Your task to perform on an android device: create a new album in the google photos Image 0: 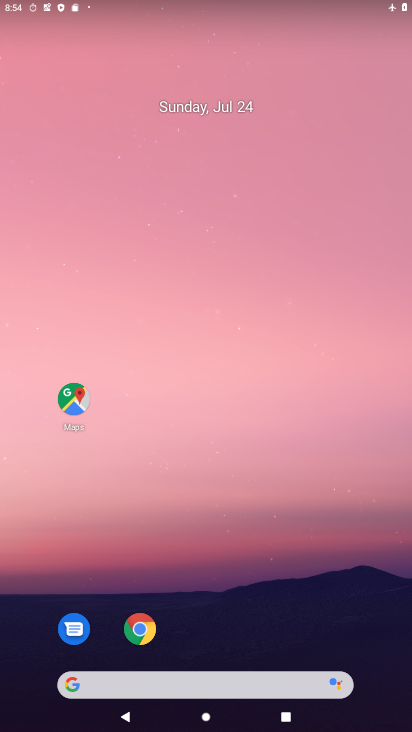
Step 0: drag from (168, 647) to (254, 122)
Your task to perform on an android device: create a new album in the google photos Image 1: 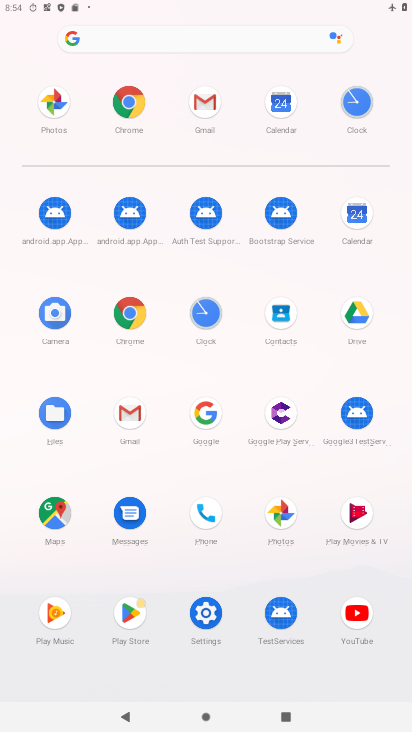
Step 1: click (272, 494)
Your task to perform on an android device: create a new album in the google photos Image 2: 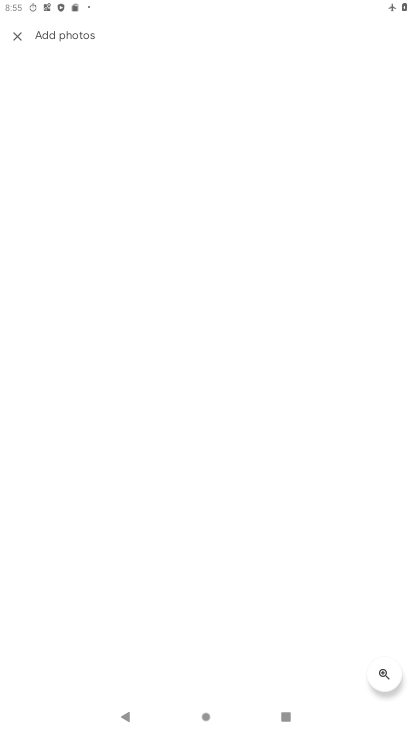
Step 2: click (21, 39)
Your task to perform on an android device: create a new album in the google photos Image 3: 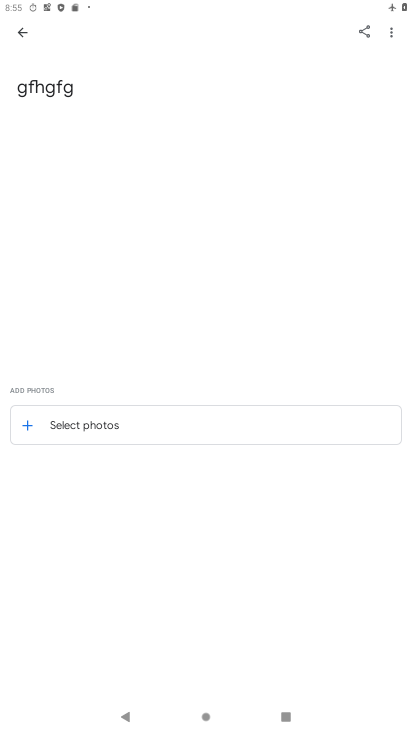
Step 3: click (118, 425)
Your task to perform on an android device: create a new album in the google photos Image 4: 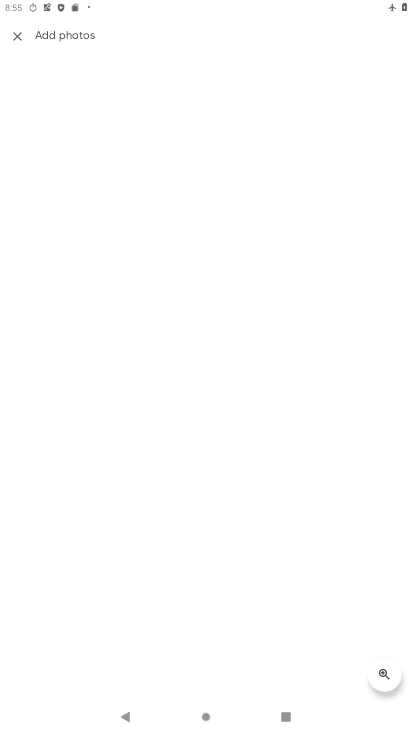
Step 4: task complete